Your task to perform on an android device: toggle show notifications on the lock screen Image 0: 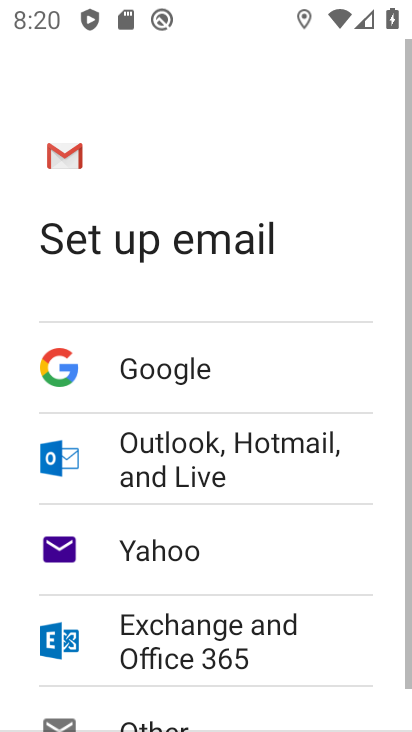
Step 0: press home button
Your task to perform on an android device: toggle show notifications on the lock screen Image 1: 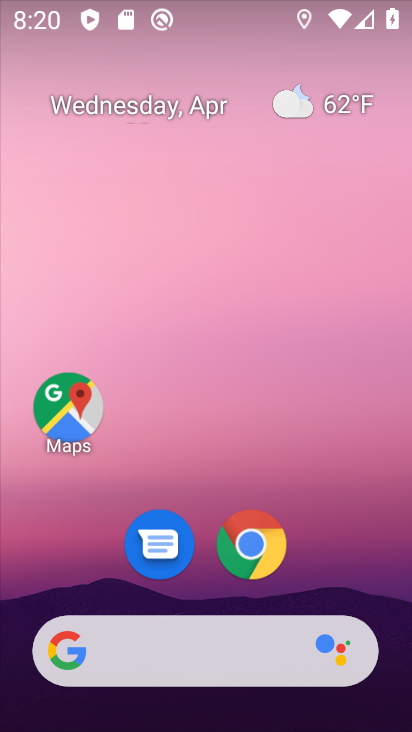
Step 1: drag from (338, 534) to (170, 239)
Your task to perform on an android device: toggle show notifications on the lock screen Image 2: 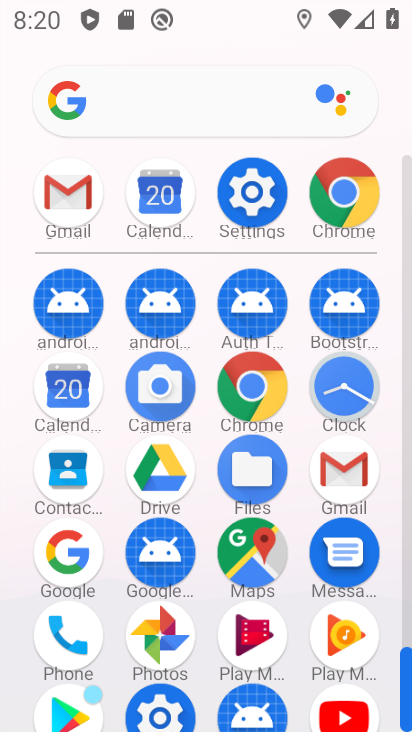
Step 2: click (237, 201)
Your task to perform on an android device: toggle show notifications on the lock screen Image 3: 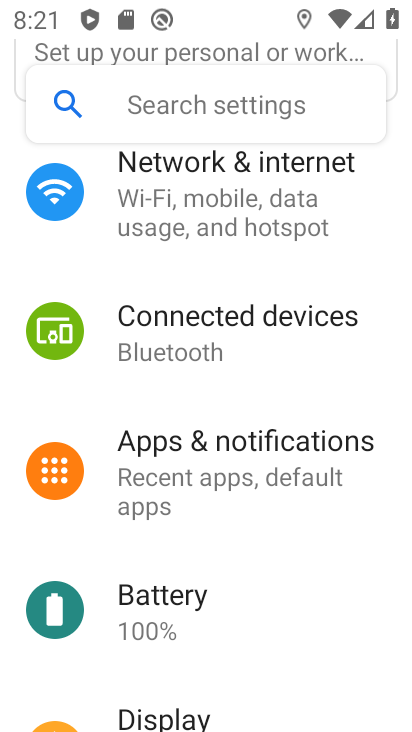
Step 3: click (230, 467)
Your task to perform on an android device: toggle show notifications on the lock screen Image 4: 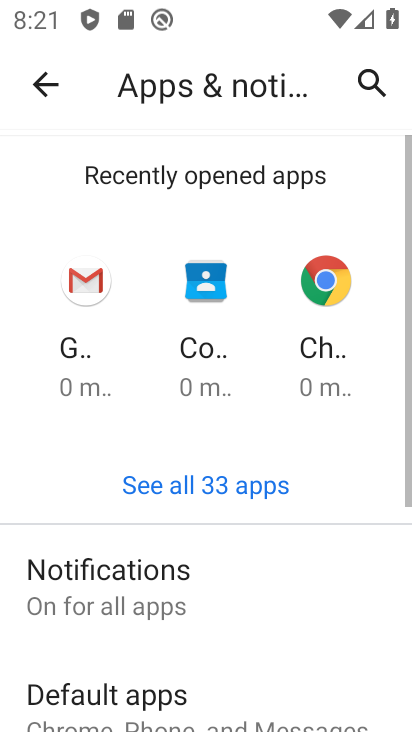
Step 4: drag from (226, 681) to (242, 248)
Your task to perform on an android device: toggle show notifications on the lock screen Image 5: 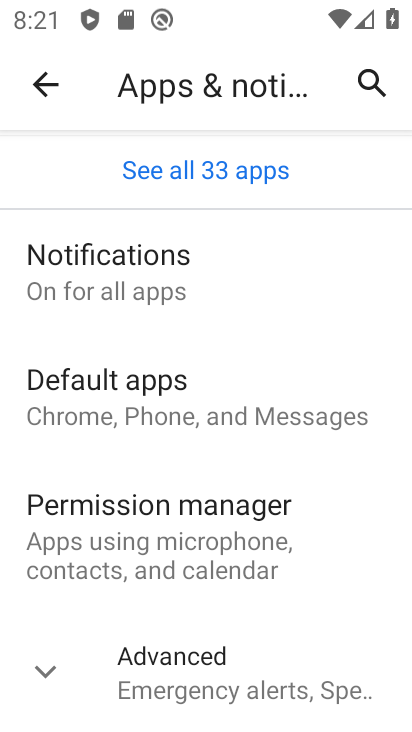
Step 5: drag from (181, 637) to (202, 272)
Your task to perform on an android device: toggle show notifications on the lock screen Image 6: 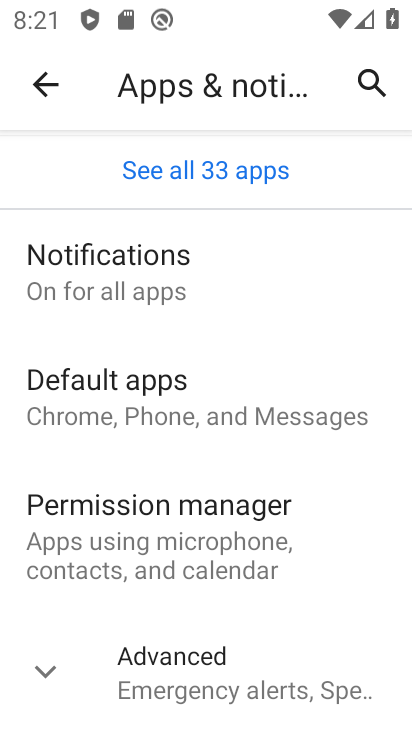
Step 6: click (87, 272)
Your task to perform on an android device: toggle show notifications on the lock screen Image 7: 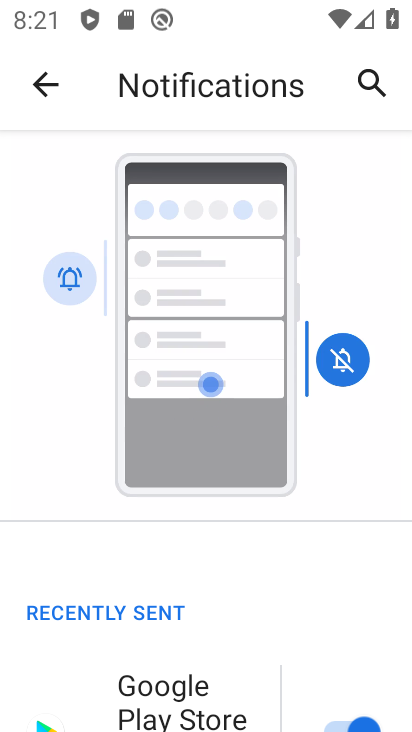
Step 7: drag from (184, 604) to (188, 218)
Your task to perform on an android device: toggle show notifications on the lock screen Image 8: 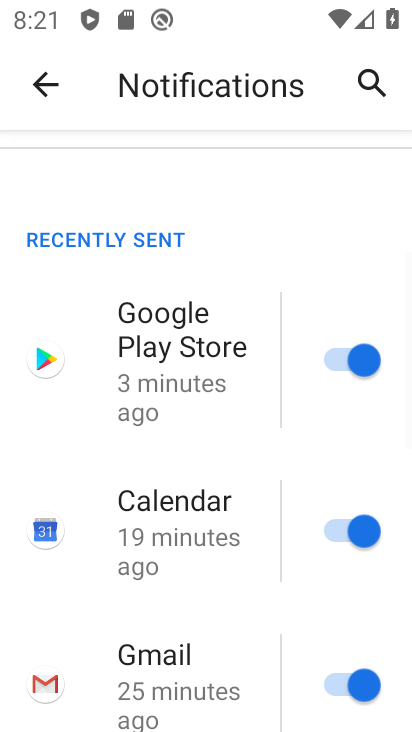
Step 8: drag from (174, 617) to (156, 251)
Your task to perform on an android device: toggle show notifications on the lock screen Image 9: 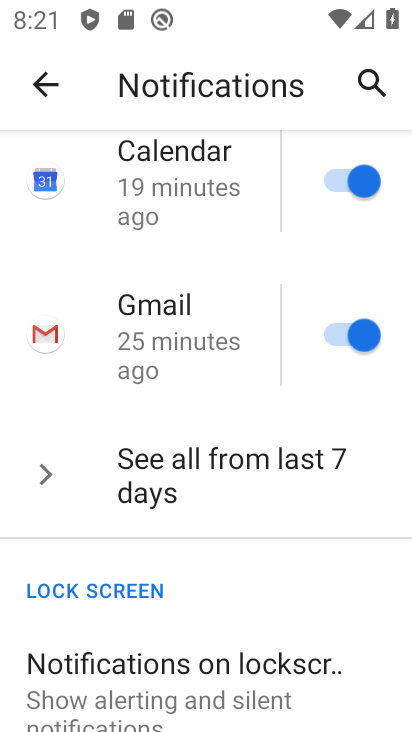
Step 9: click (187, 682)
Your task to perform on an android device: toggle show notifications on the lock screen Image 10: 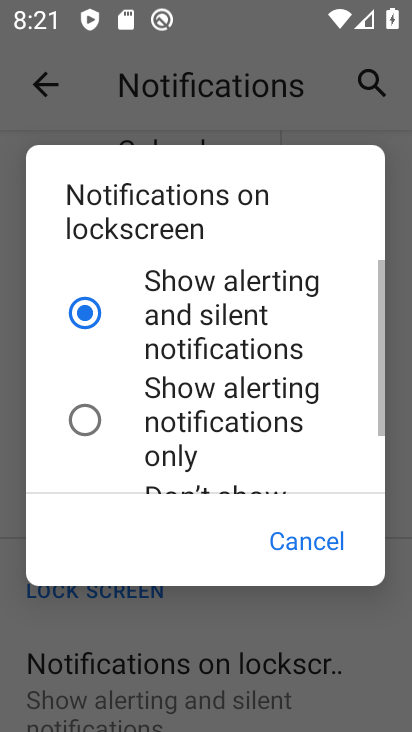
Step 10: click (206, 412)
Your task to perform on an android device: toggle show notifications on the lock screen Image 11: 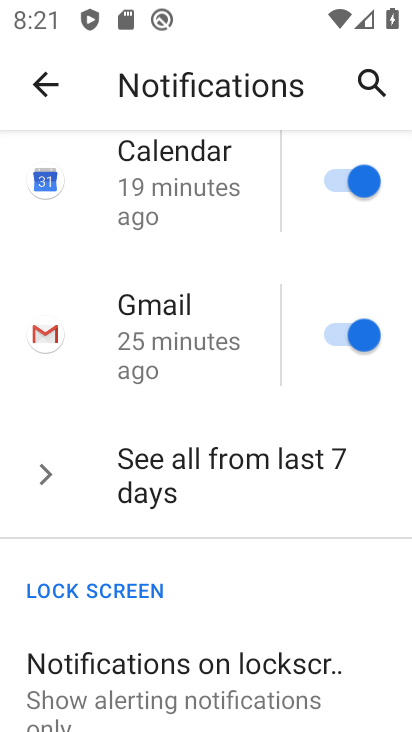
Step 11: task complete